Your task to perform on an android device: open chrome and create a bookmark for the current page Image 0: 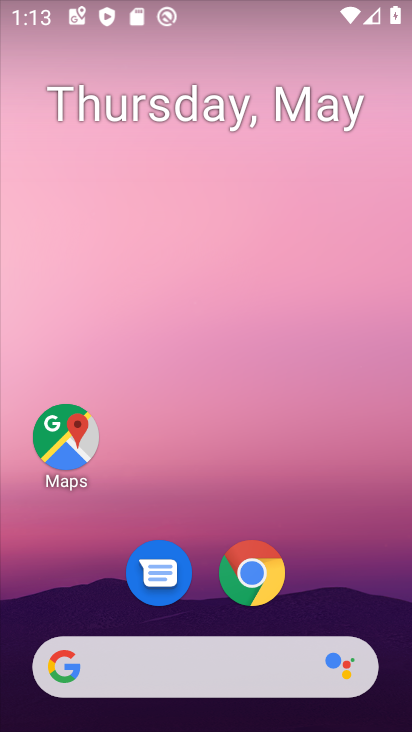
Step 0: click (253, 587)
Your task to perform on an android device: open chrome and create a bookmark for the current page Image 1: 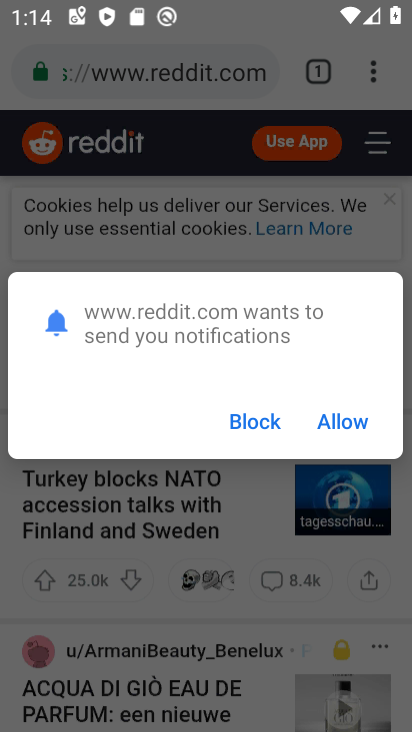
Step 1: click (337, 422)
Your task to perform on an android device: open chrome and create a bookmark for the current page Image 2: 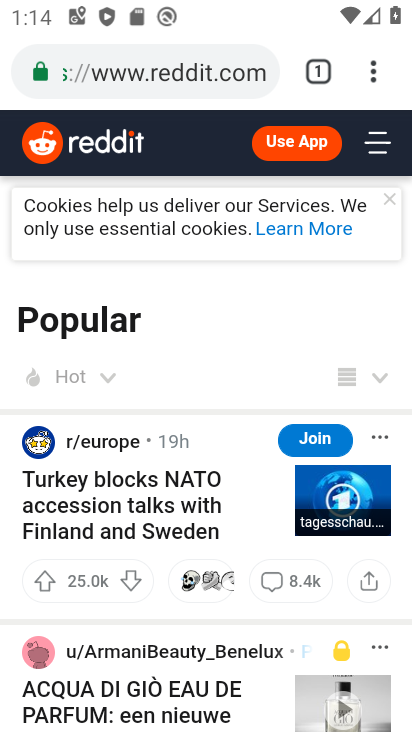
Step 2: task complete